Your task to perform on an android device: Go to Google maps Image 0: 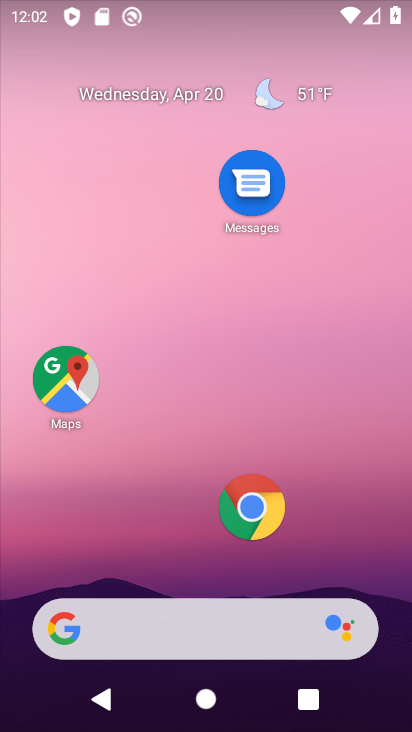
Step 0: click (69, 381)
Your task to perform on an android device: Go to Google maps Image 1: 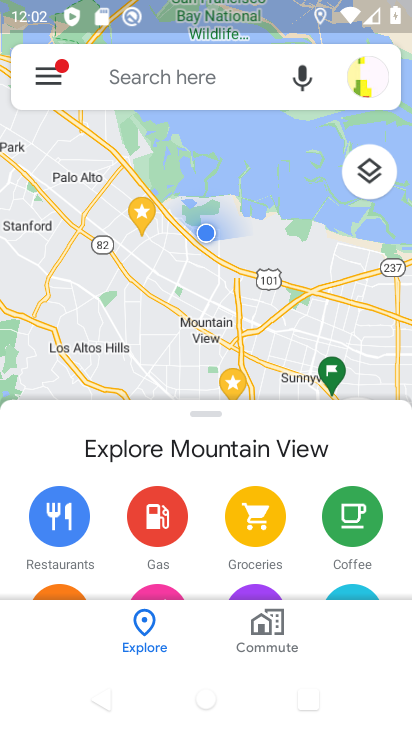
Step 1: task complete